Your task to perform on an android device: open chrome and create a bookmark for the current page Image 0: 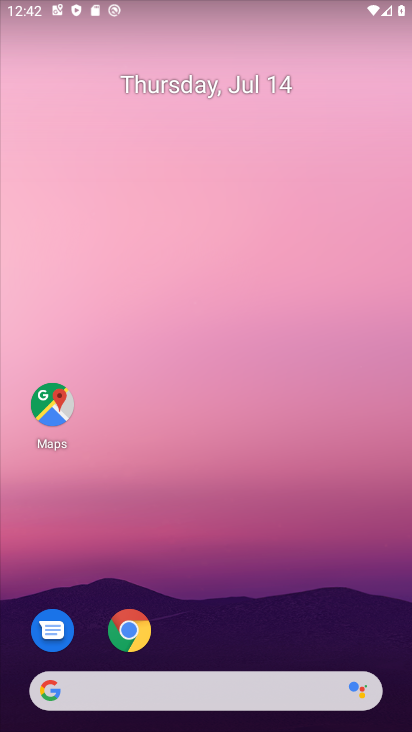
Step 0: click (130, 639)
Your task to perform on an android device: open chrome and create a bookmark for the current page Image 1: 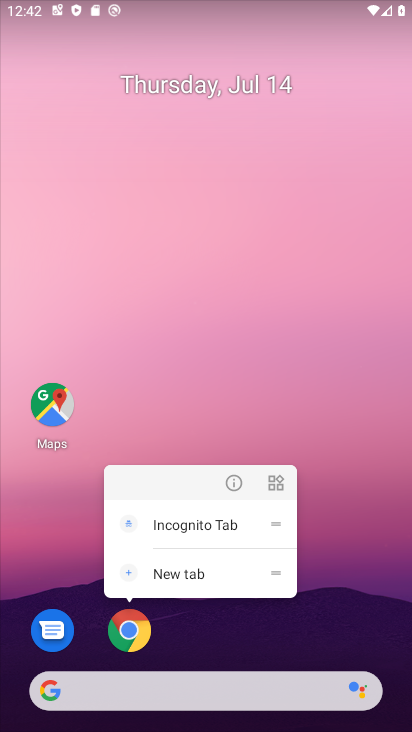
Step 1: click (130, 639)
Your task to perform on an android device: open chrome and create a bookmark for the current page Image 2: 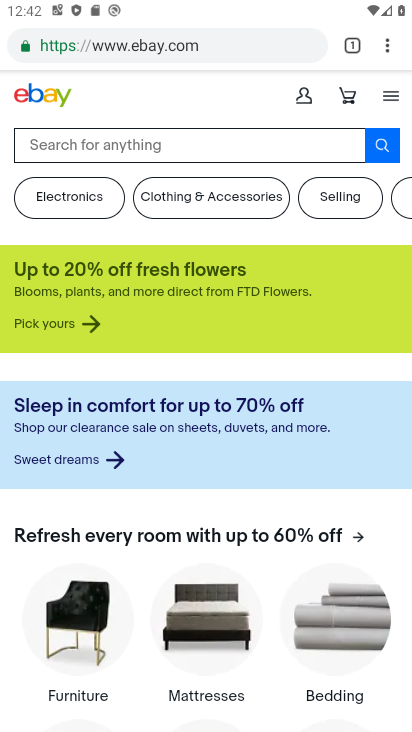
Step 2: click (385, 42)
Your task to perform on an android device: open chrome and create a bookmark for the current page Image 3: 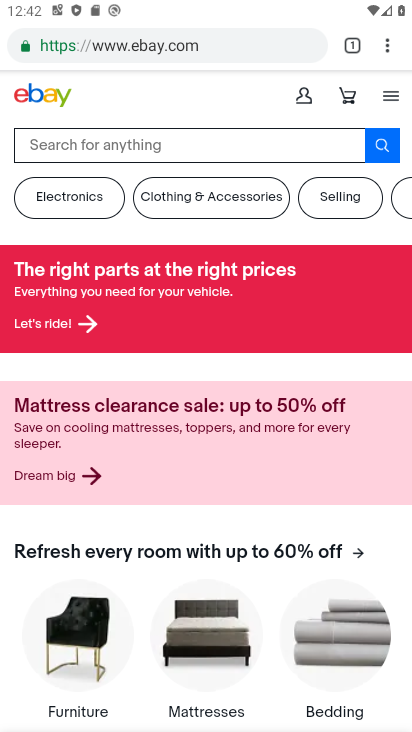
Step 3: click (389, 47)
Your task to perform on an android device: open chrome and create a bookmark for the current page Image 4: 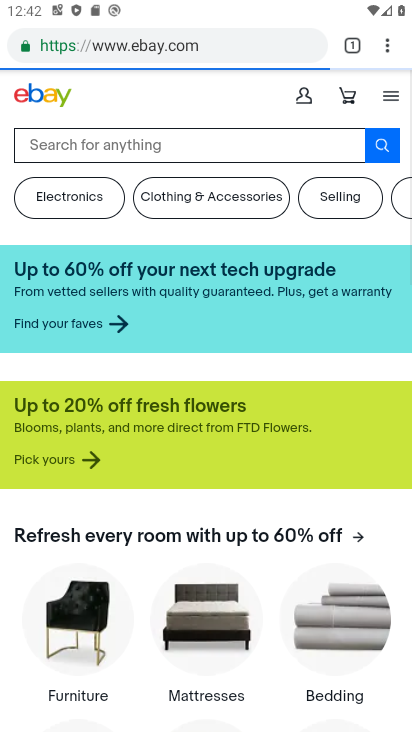
Step 4: click (387, 45)
Your task to perform on an android device: open chrome and create a bookmark for the current page Image 5: 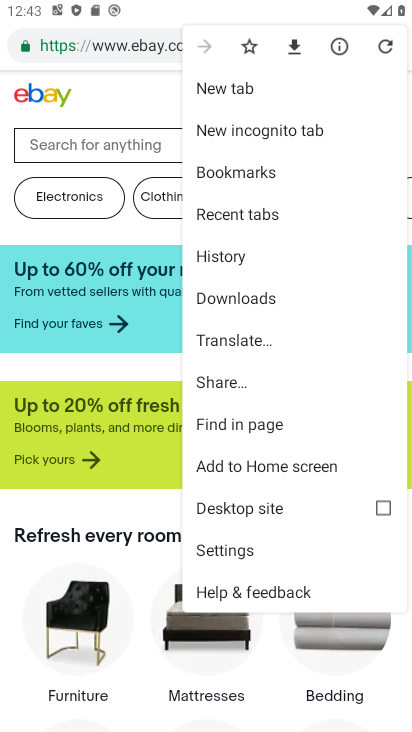
Step 5: click (252, 44)
Your task to perform on an android device: open chrome and create a bookmark for the current page Image 6: 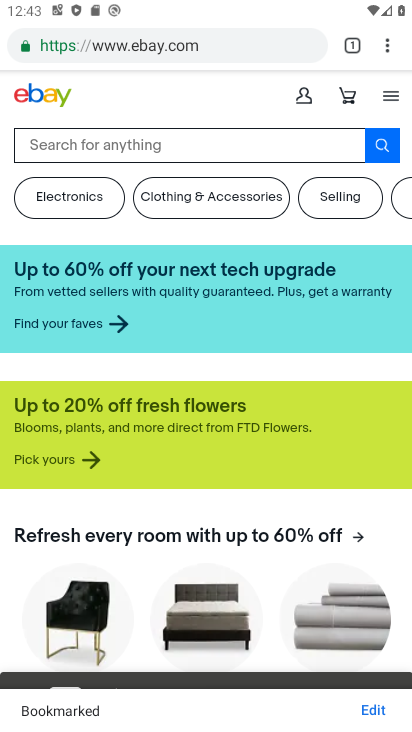
Step 6: task complete